Your task to perform on an android device: Search for pizza restaurants on Maps Image 0: 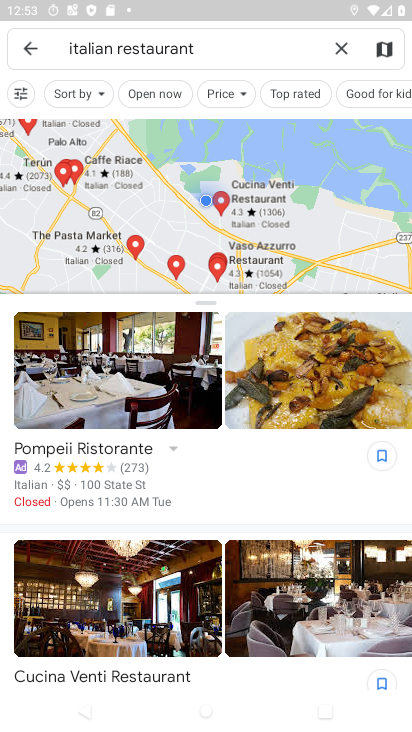
Step 0: press home button
Your task to perform on an android device: Search for pizza restaurants on Maps Image 1: 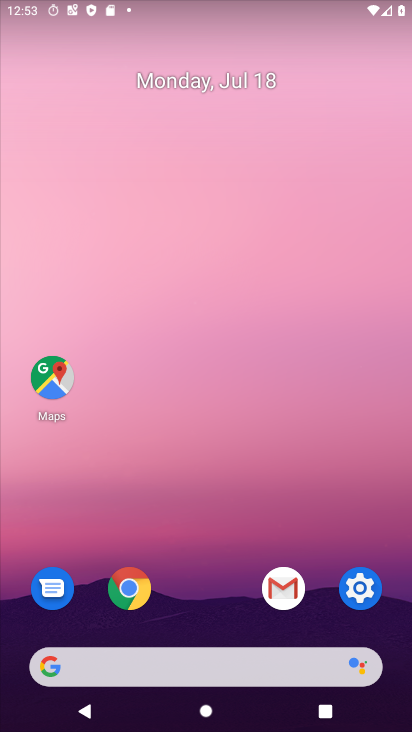
Step 1: click (65, 371)
Your task to perform on an android device: Search for pizza restaurants on Maps Image 2: 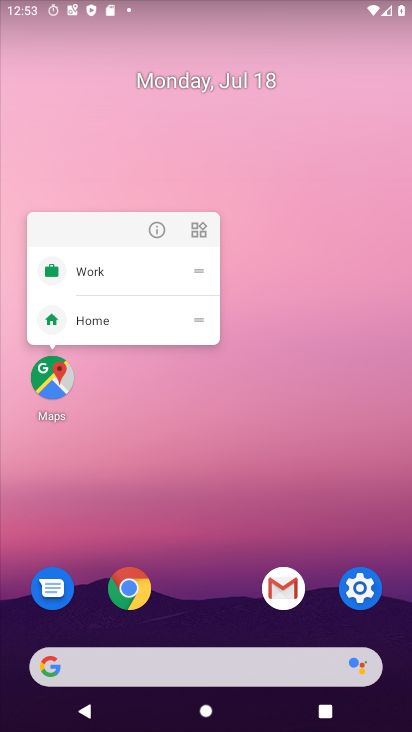
Step 2: click (45, 386)
Your task to perform on an android device: Search for pizza restaurants on Maps Image 3: 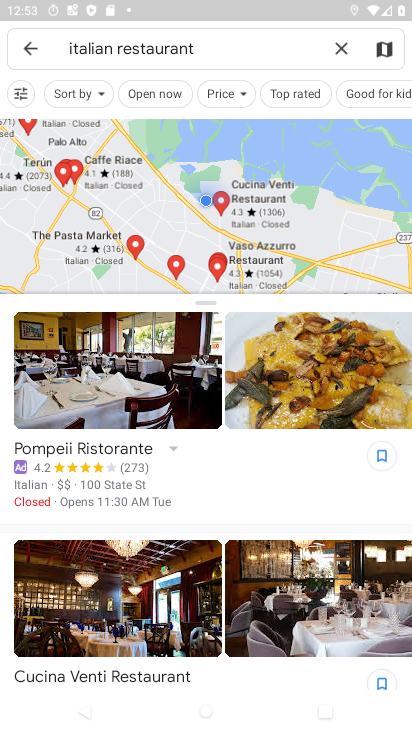
Step 3: click (342, 45)
Your task to perform on an android device: Search for pizza restaurants on Maps Image 4: 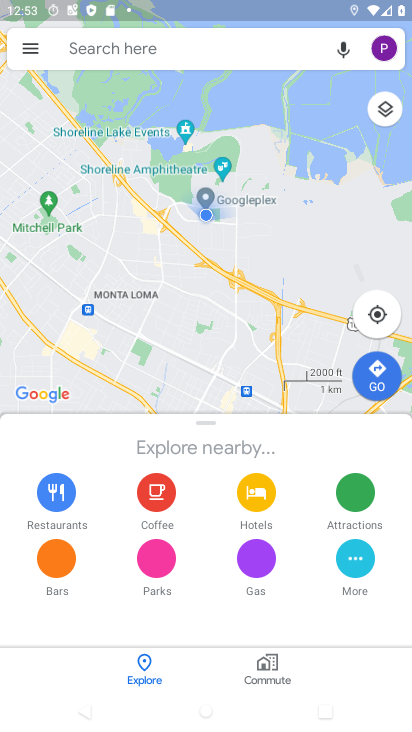
Step 4: click (255, 47)
Your task to perform on an android device: Search for pizza restaurants on Maps Image 5: 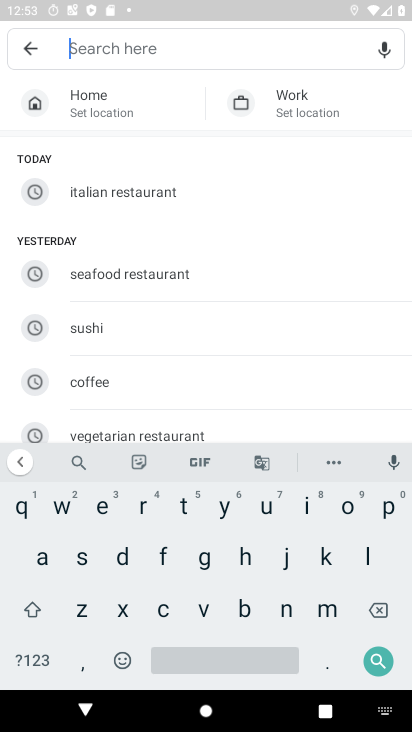
Step 5: click (389, 509)
Your task to perform on an android device: Search for pizza restaurants on Maps Image 6: 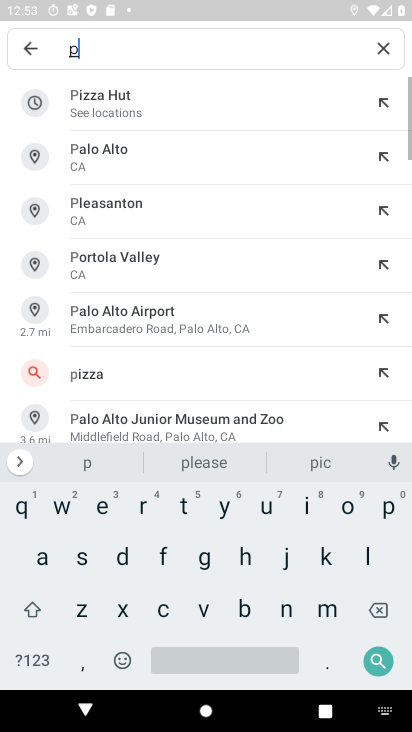
Step 6: click (308, 506)
Your task to perform on an android device: Search for pizza restaurants on Maps Image 7: 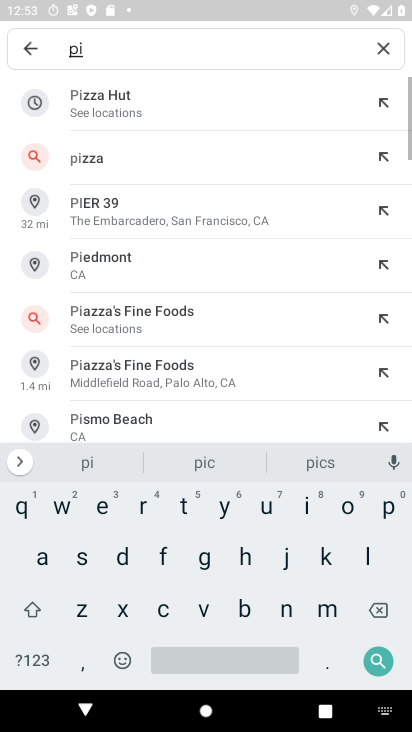
Step 7: click (86, 609)
Your task to perform on an android device: Search for pizza restaurants on Maps Image 8: 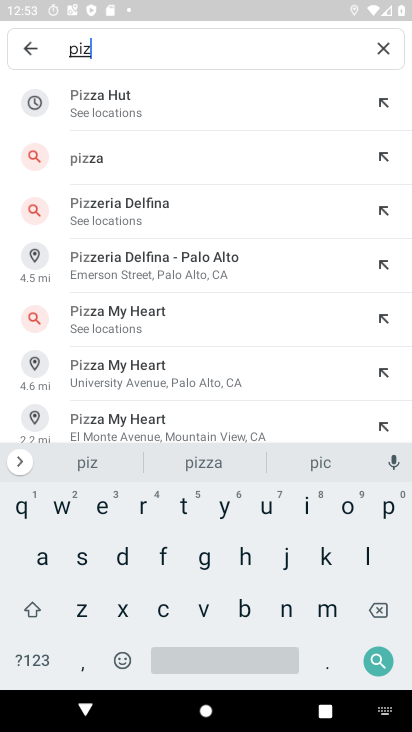
Step 8: click (211, 462)
Your task to perform on an android device: Search for pizza restaurants on Maps Image 9: 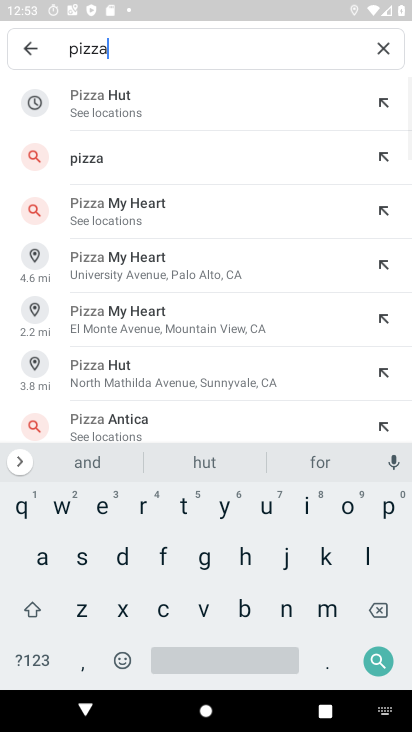
Step 9: click (139, 507)
Your task to perform on an android device: Search for pizza restaurants on Maps Image 10: 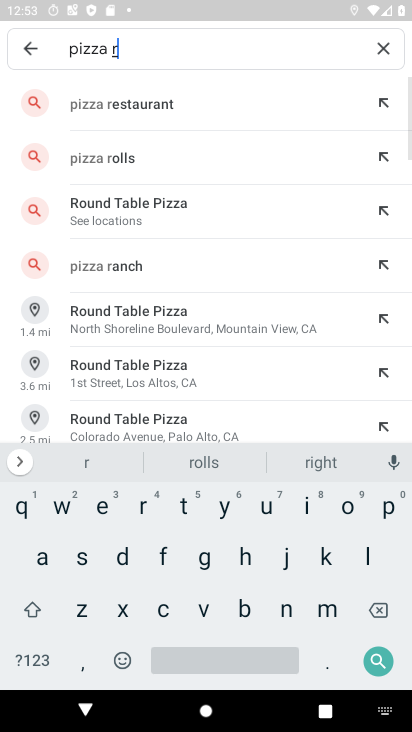
Step 10: click (132, 106)
Your task to perform on an android device: Search for pizza restaurants on Maps Image 11: 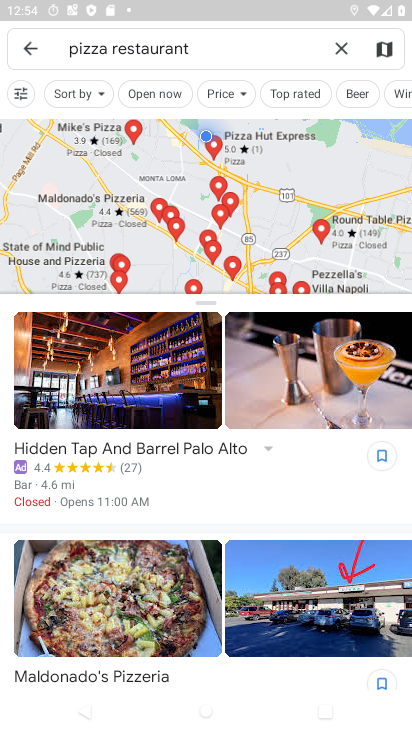
Step 11: task complete